Your task to perform on an android device: turn off picture-in-picture Image 0: 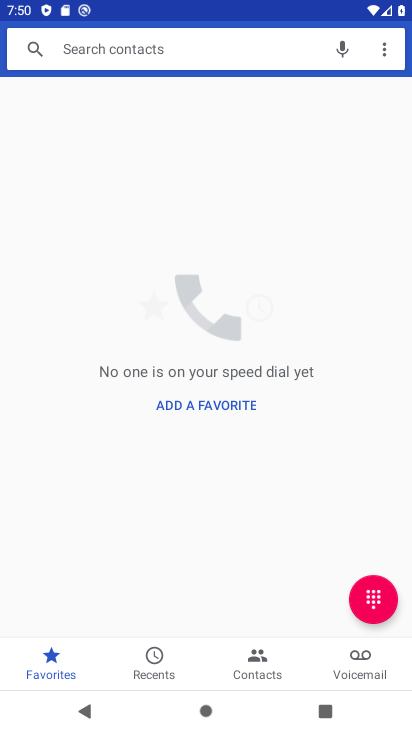
Step 0: press home button
Your task to perform on an android device: turn off picture-in-picture Image 1: 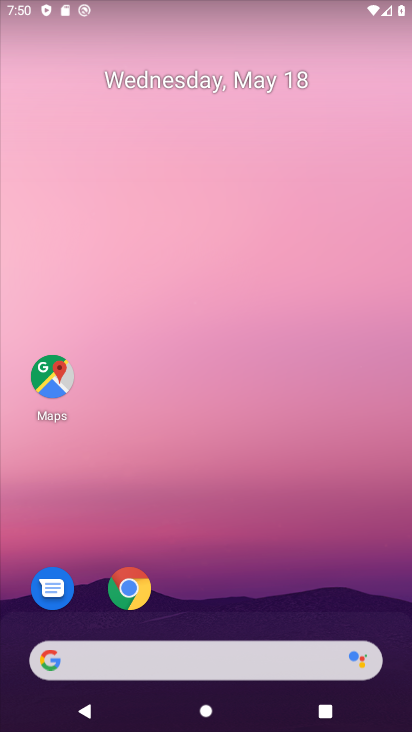
Step 1: drag from (272, 608) to (257, 49)
Your task to perform on an android device: turn off picture-in-picture Image 2: 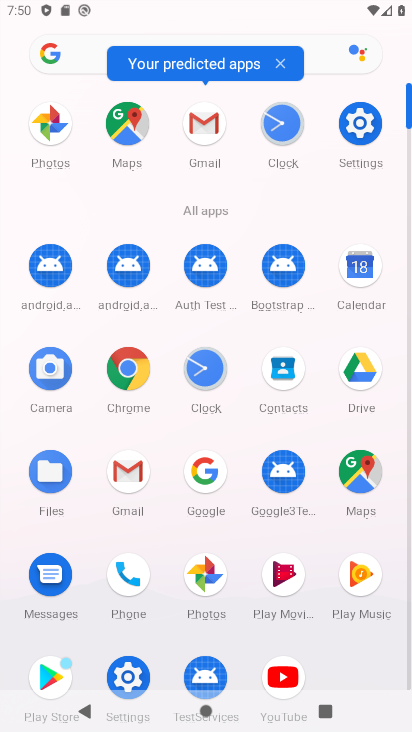
Step 2: click (354, 129)
Your task to perform on an android device: turn off picture-in-picture Image 3: 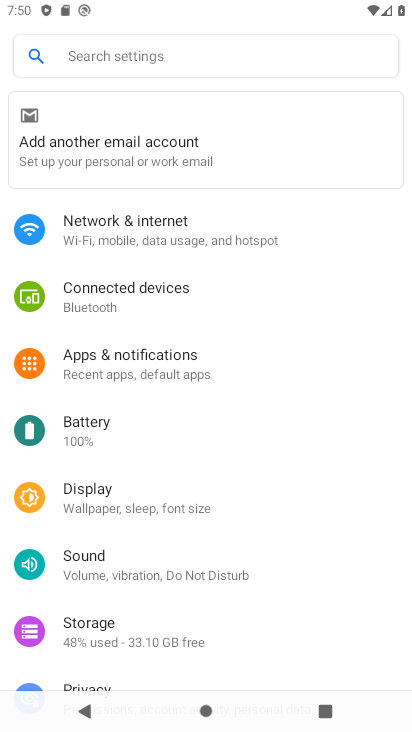
Step 3: click (204, 365)
Your task to perform on an android device: turn off picture-in-picture Image 4: 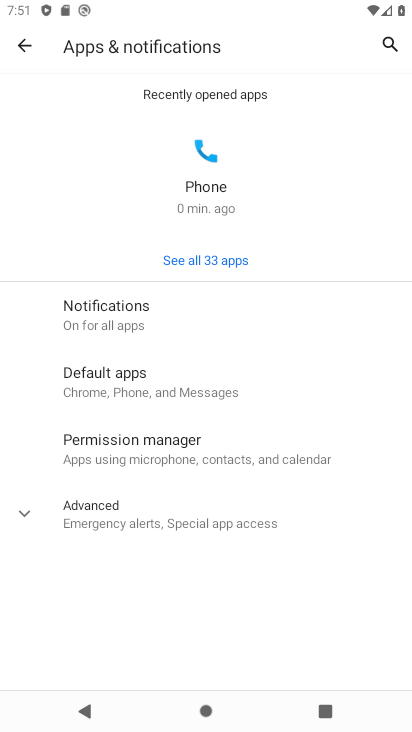
Step 4: click (219, 330)
Your task to perform on an android device: turn off picture-in-picture Image 5: 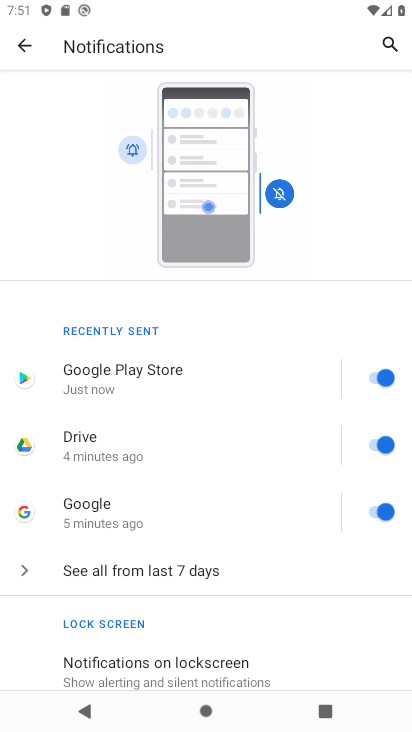
Step 5: drag from (185, 566) to (237, 230)
Your task to perform on an android device: turn off picture-in-picture Image 6: 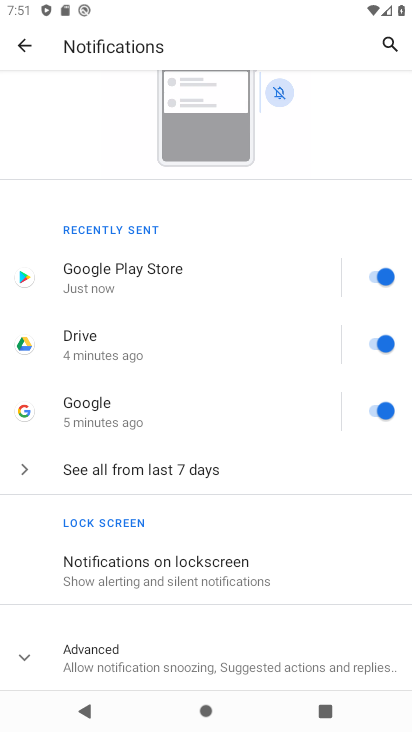
Step 6: click (153, 668)
Your task to perform on an android device: turn off picture-in-picture Image 7: 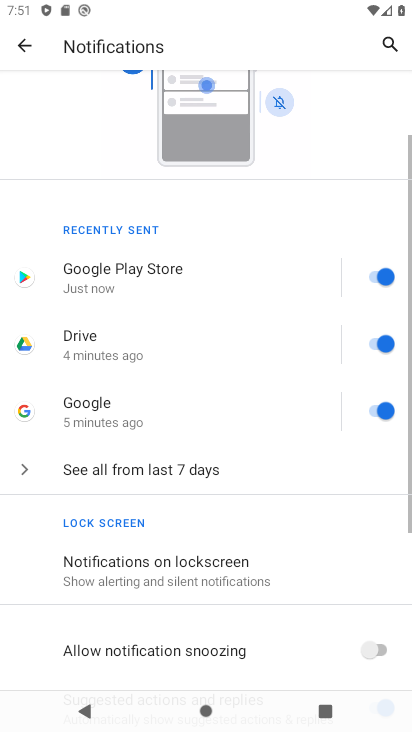
Step 7: drag from (217, 622) to (232, 270)
Your task to perform on an android device: turn off picture-in-picture Image 8: 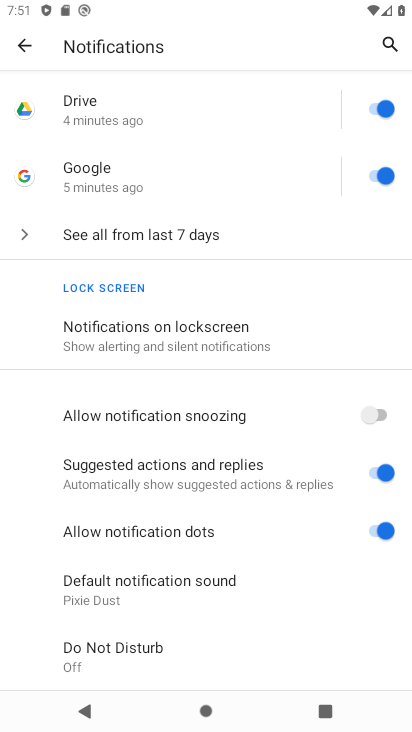
Step 8: click (320, 531)
Your task to perform on an android device: turn off picture-in-picture Image 9: 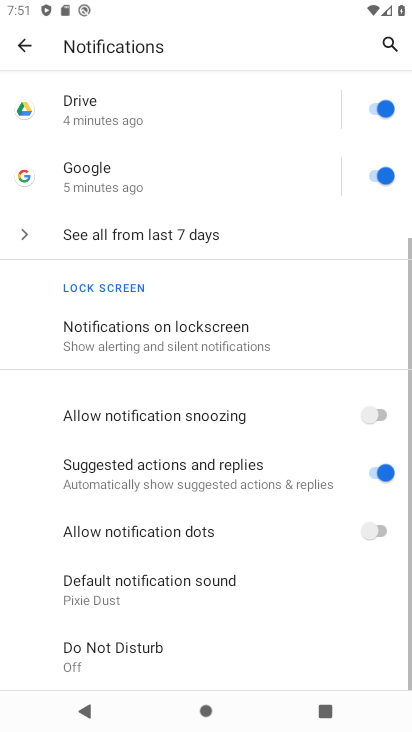
Step 9: task complete